Your task to perform on an android device: toggle sleep mode Image 0: 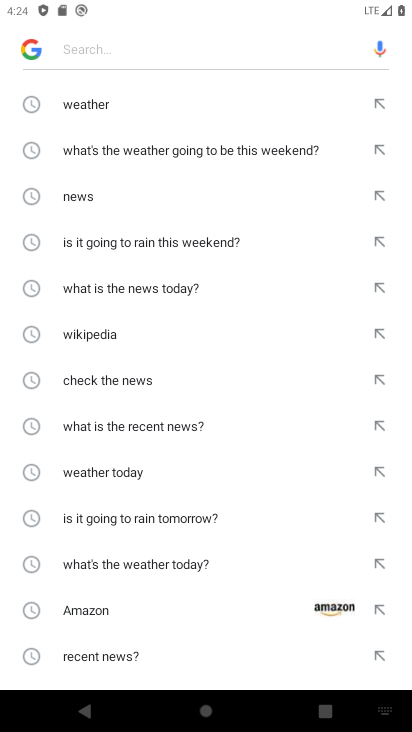
Step 0: press back button
Your task to perform on an android device: toggle sleep mode Image 1: 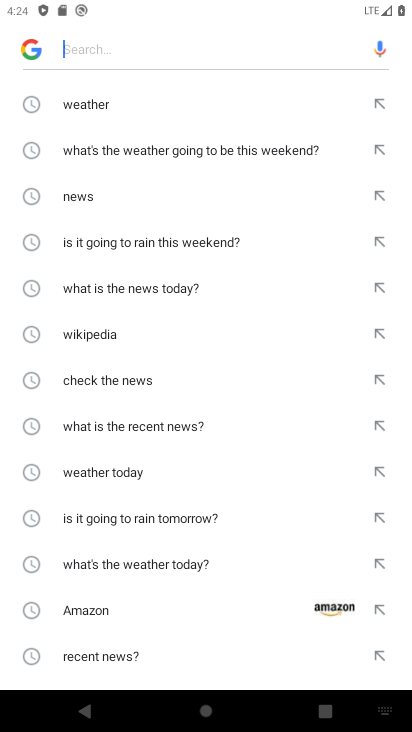
Step 1: press home button
Your task to perform on an android device: toggle sleep mode Image 2: 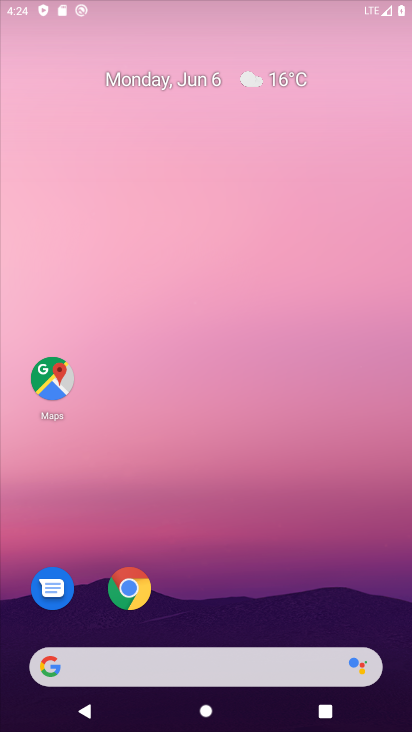
Step 2: press back button
Your task to perform on an android device: toggle sleep mode Image 3: 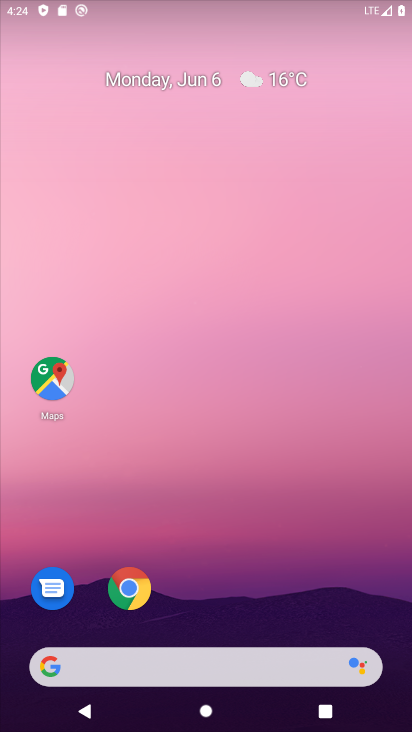
Step 3: press home button
Your task to perform on an android device: toggle sleep mode Image 4: 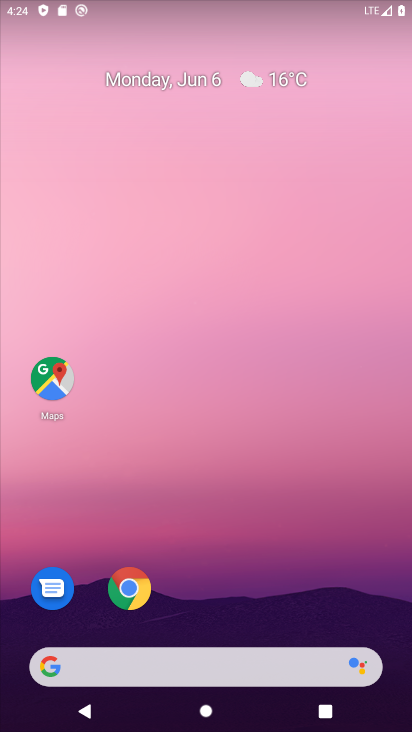
Step 4: press home button
Your task to perform on an android device: toggle sleep mode Image 5: 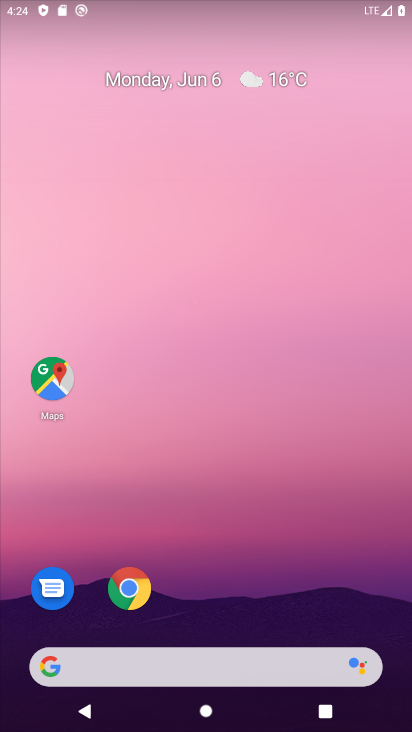
Step 5: click (129, 70)
Your task to perform on an android device: toggle sleep mode Image 6: 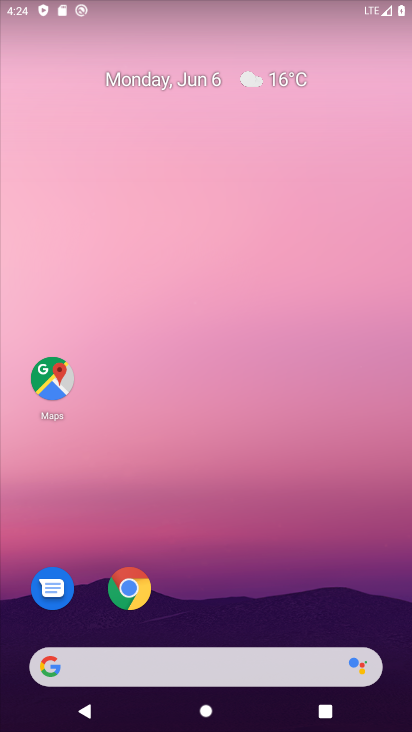
Step 6: drag from (276, 709) to (210, 351)
Your task to perform on an android device: toggle sleep mode Image 7: 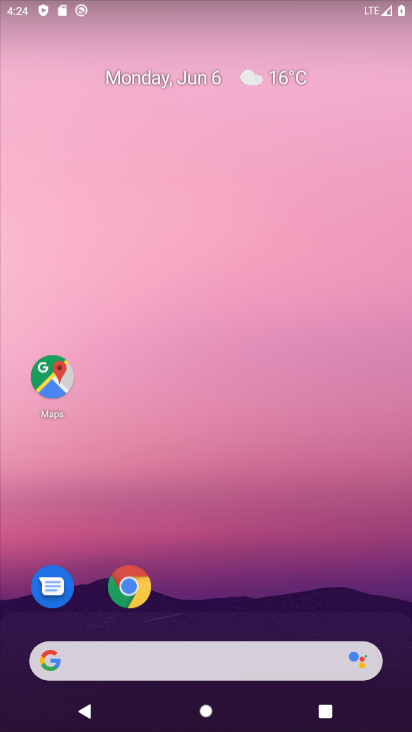
Step 7: drag from (276, 637) to (212, 224)
Your task to perform on an android device: toggle sleep mode Image 8: 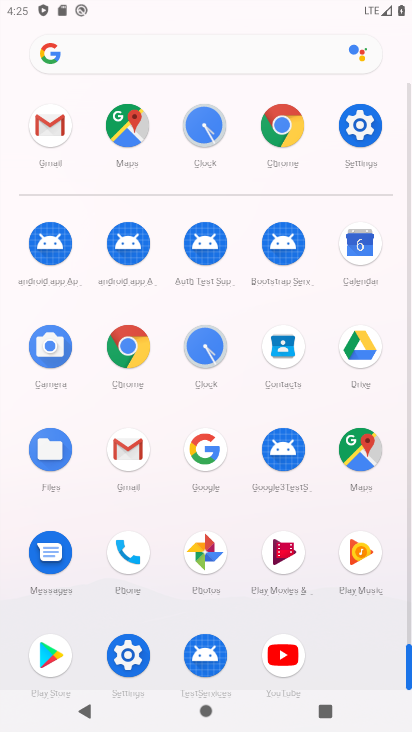
Step 8: drag from (217, 480) to (153, 181)
Your task to perform on an android device: toggle sleep mode Image 9: 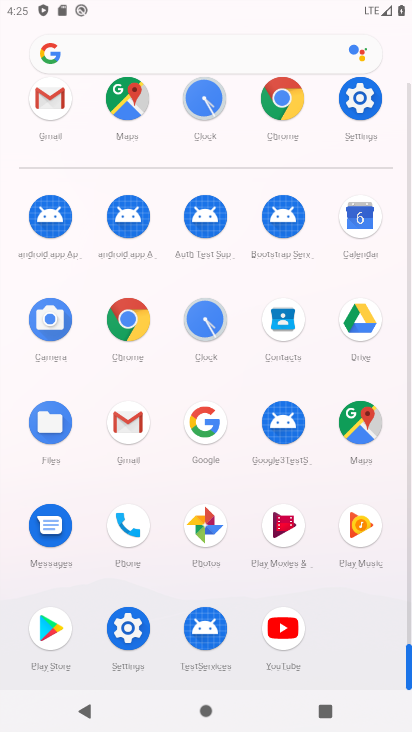
Step 9: click (124, 638)
Your task to perform on an android device: toggle sleep mode Image 10: 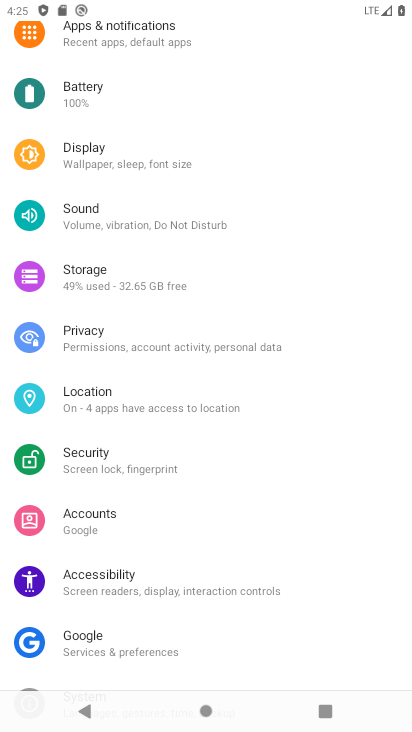
Step 10: click (102, 160)
Your task to perform on an android device: toggle sleep mode Image 11: 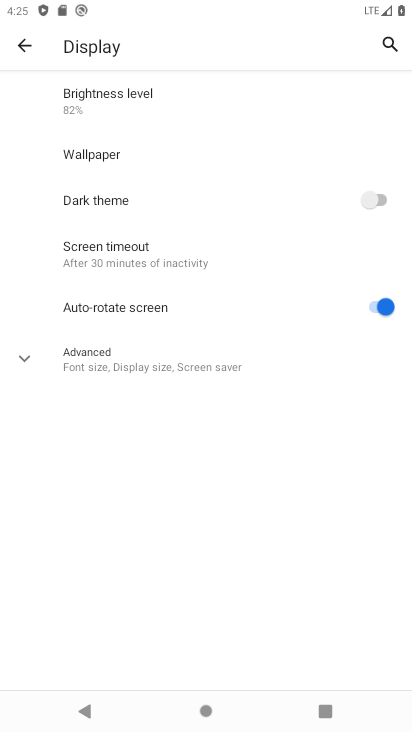
Step 11: click (106, 251)
Your task to perform on an android device: toggle sleep mode Image 12: 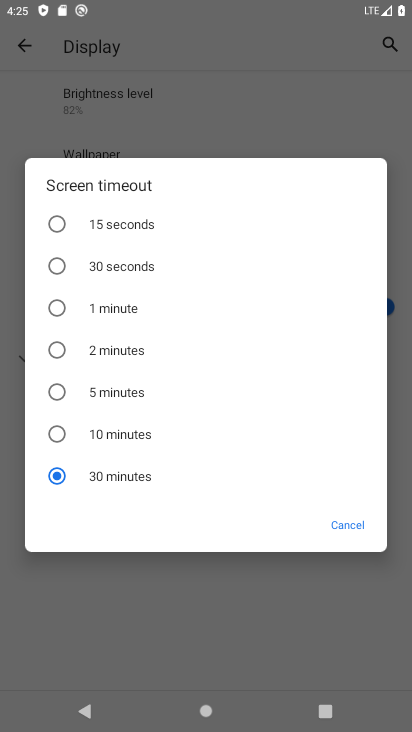
Step 12: task complete